Your task to perform on an android device: What's on my calendar today? Image 0: 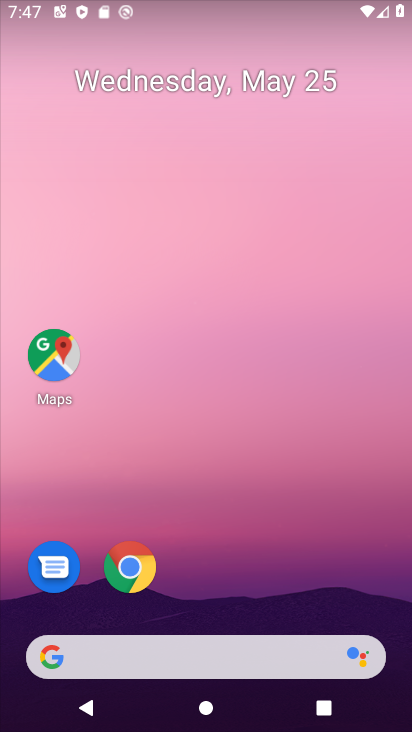
Step 0: drag from (306, 572) to (306, 96)
Your task to perform on an android device: What's on my calendar today? Image 1: 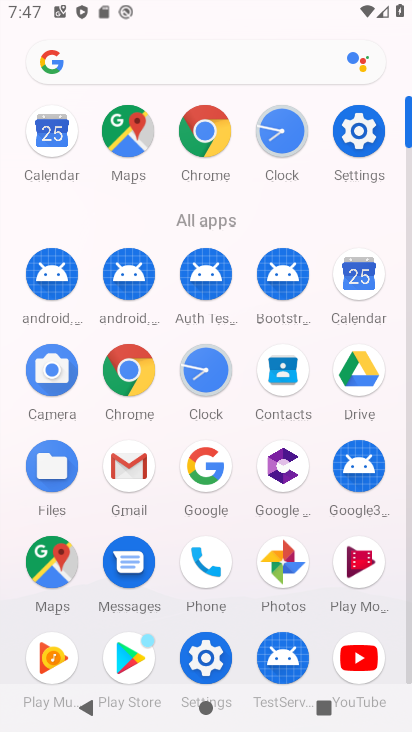
Step 1: click (353, 268)
Your task to perform on an android device: What's on my calendar today? Image 2: 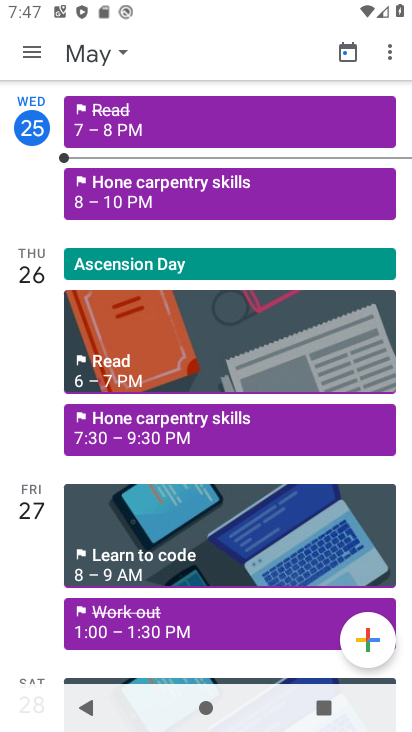
Step 2: task complete